Your task to perform on an android device: Show me productivity apps on the Play Store Image 0: 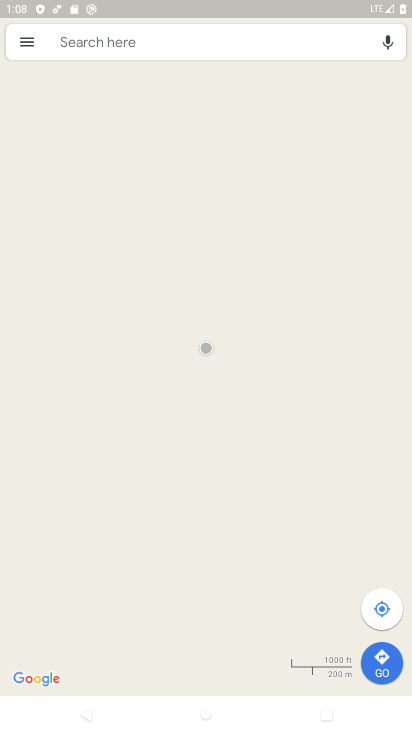
Step 0: press home button
Your task to perform on an android device: Show me productivity apps on the Play Store Image 1: 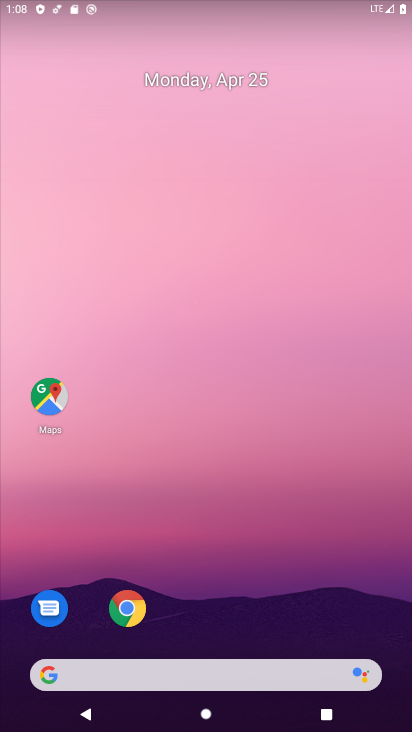
Step 1: drag from (279, 637) to (279, 141)
Your task to perform on an android device: Show me productivity apps on the Play Store Image 2: 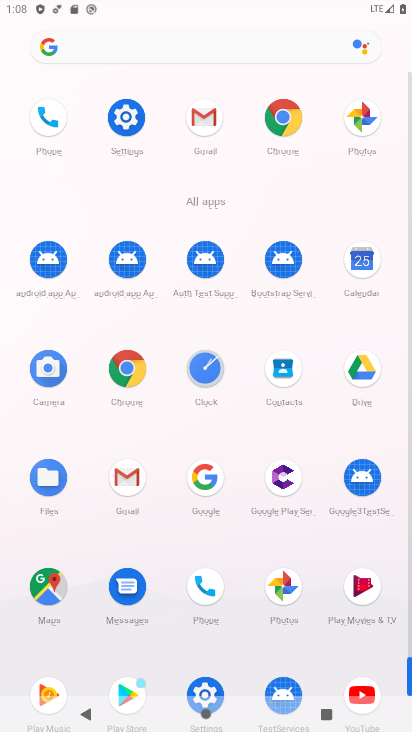
Step 2: drag from (161, 631) to (243, 244)
Your task to perform on an android device: Show me productivity apps on the Play Store Image 3: 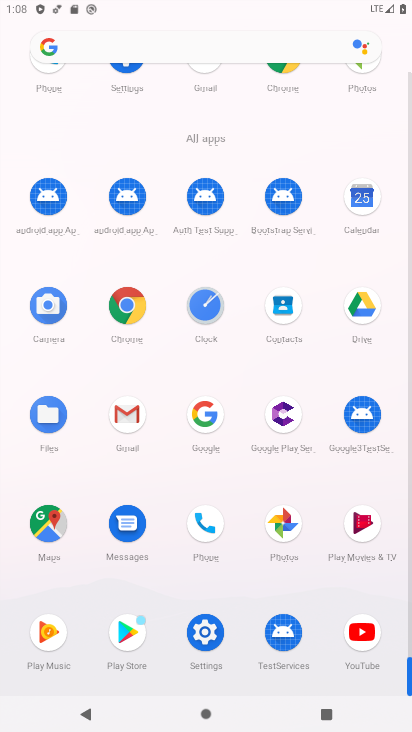
Step 3: click (119, 636)
Your task to perform on an android device: Show me productivity apps on the Play Store Image 4: 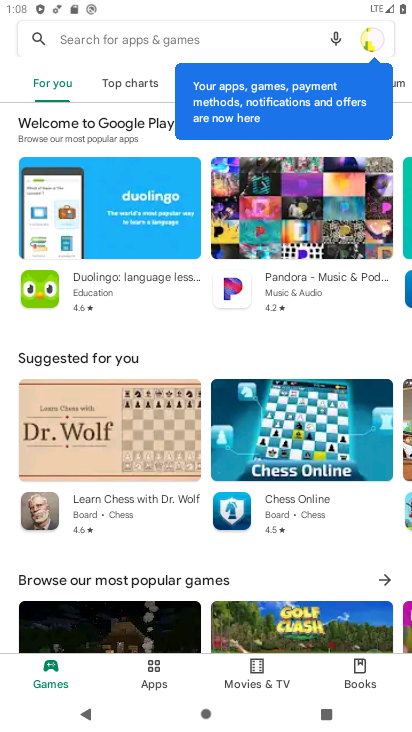
Step 4: click (156, 663)
Your task to perform on an android device: Show me productivity apps on the Play Store Image 5: 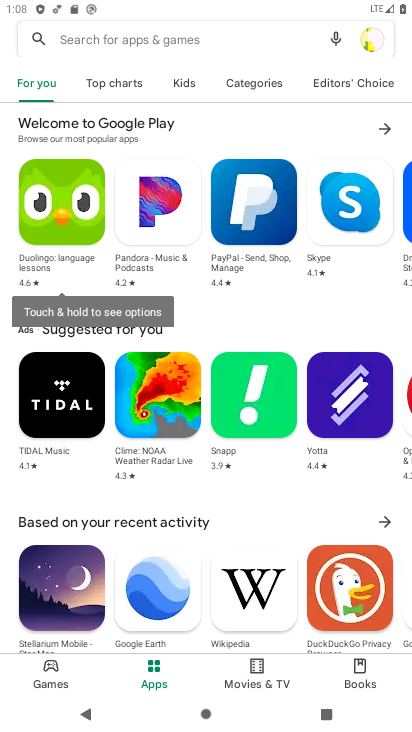
Step 5: click (253, 90)
Your task to perform on an android device: Show me productivity apps on the Play Store Image 6: 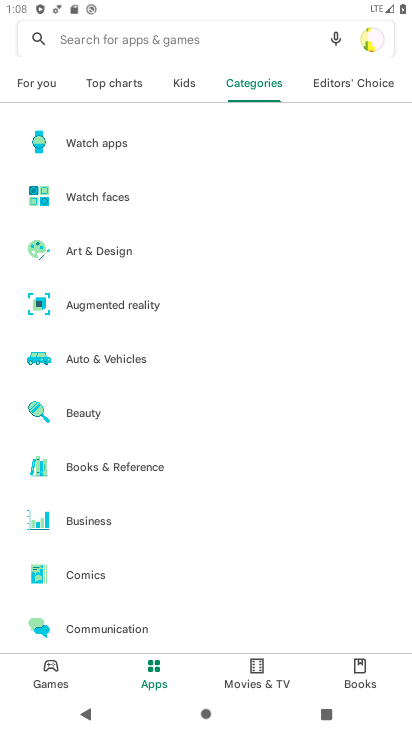
Step 6: drag from (223, 583) to (289, 134)
Your task to perform on an android device: Show me productivity apps on the Play Store Image 7: 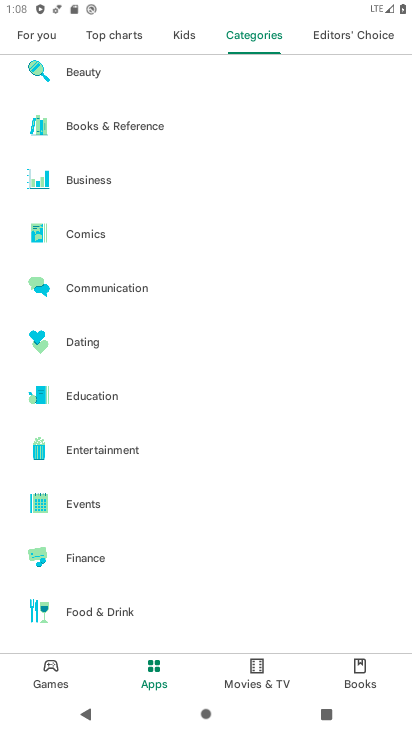
Step 7: drag from (242, 531) to (271, 99)
Your task to perform on an android device: Show me productivity apps on the Play Store Image 8: 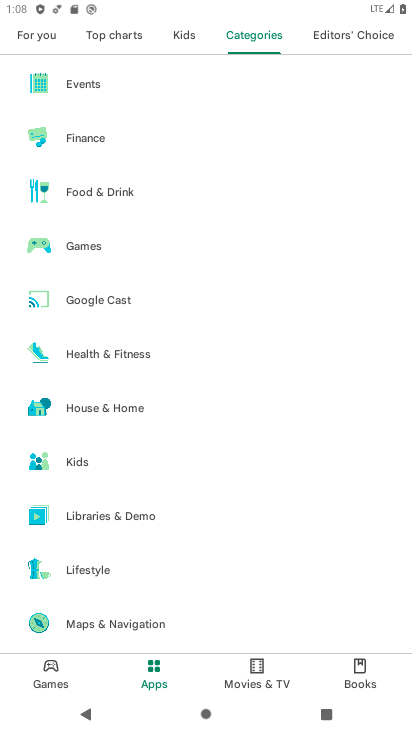
Step 8: drag from (219, 511) to (283, 117)
Your task to perform on an android device: Show me productivity apps on the Play Store Image 9: 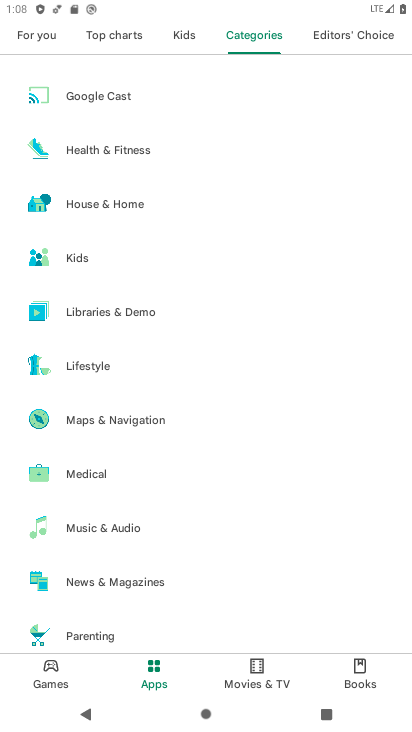
Step 9: drag from (209, 587) to (273, 159)
Your task to perform on an android device: Show me productivity apps on the Play Store Image 10: 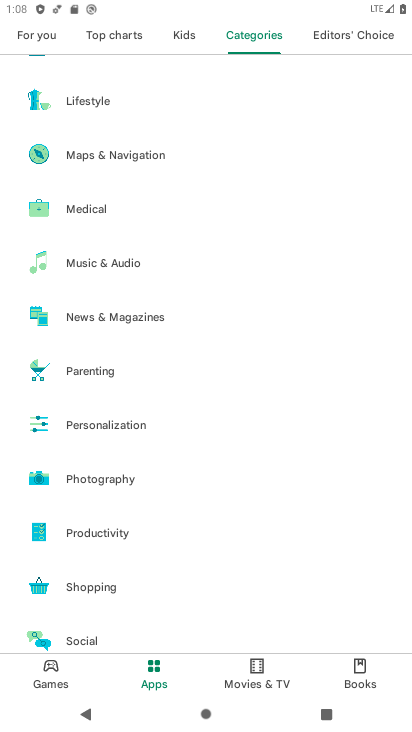
Step 10: click (153, 537)
Your task to perform on an android device: Show me productivity apps on the Play Store Image 11: 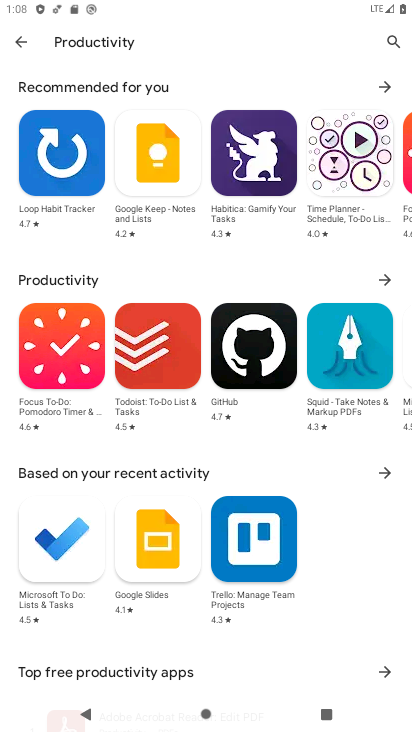
Step 11: task complete